Your task to perform on an android device: Search for vegetarian restaurants on Maps Image 0: 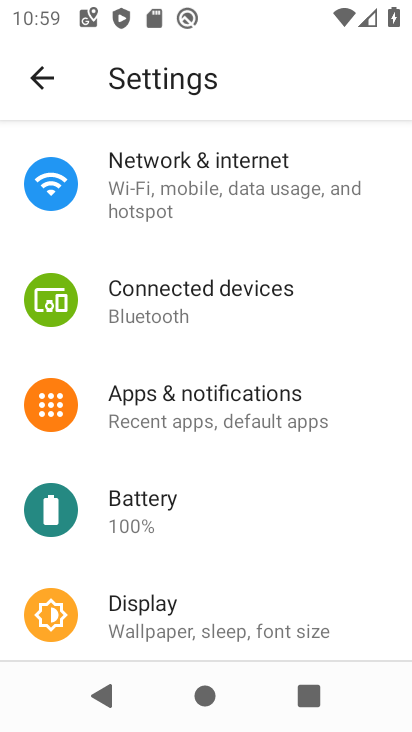
Step 0: press back button
Your task to perform on an android device: Search for vegetarian restaurants on Maps Image 1: 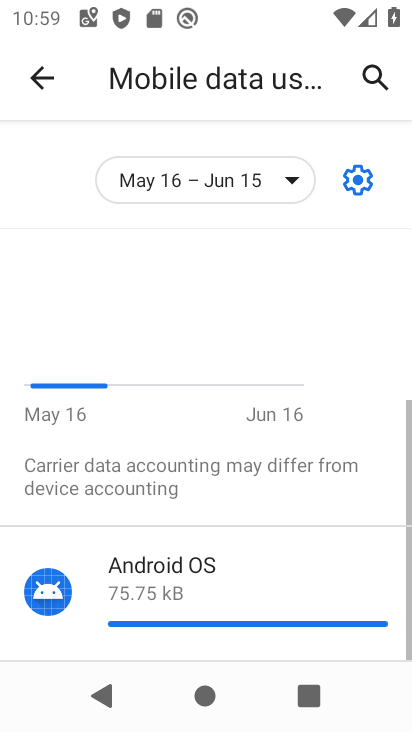
Step 1: press back button
Your task to perform on an android device: Search for vegetarian restaurants on Maps Image 2: 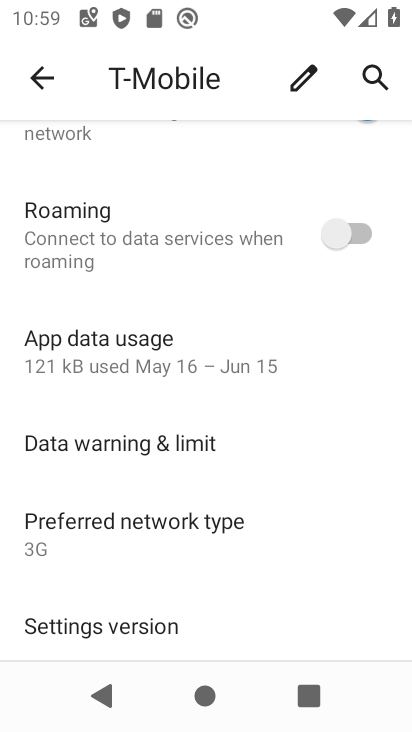
Step 2: press back button
Your task to perform on an android device: Search for vegetarian restaurants on Maps Image 3: 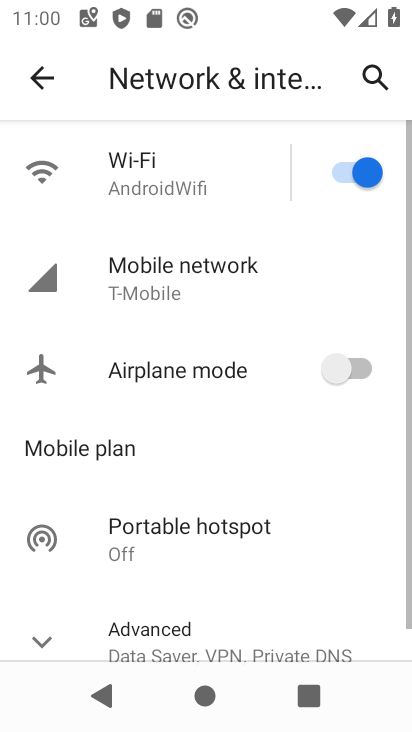
Step 3: press back button
Your task to perform on an android device: Search for vegetarian restaurants on Maps Image 4: 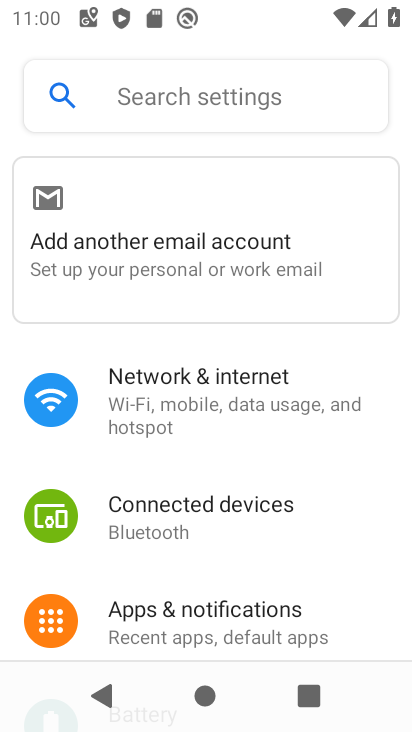
Step 4: press back button
Your task to perform on an android device: Search for vegetarian restaurants on Maps Image 5: 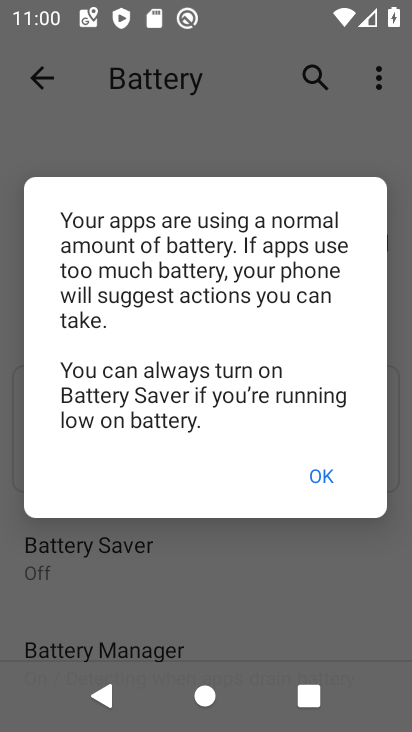
Step 5: press home button
Your task to perform on an android device: Search for vegetarian restaurants on Maps Image 6: 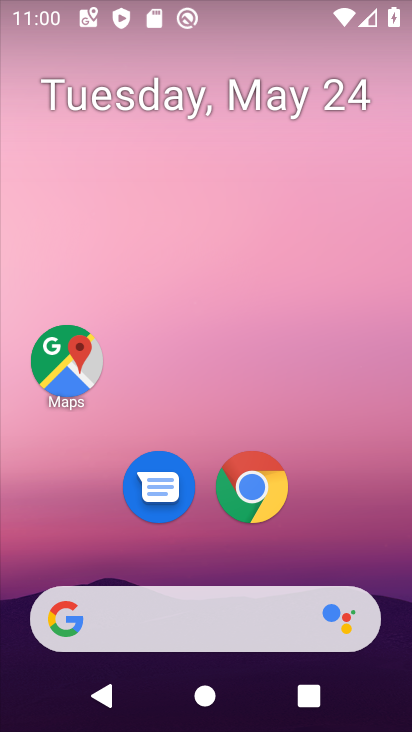
Step 6: click (63, 348)
Your task to perform on an android device: Search for vegetarian restaurants on Maps Image 7: 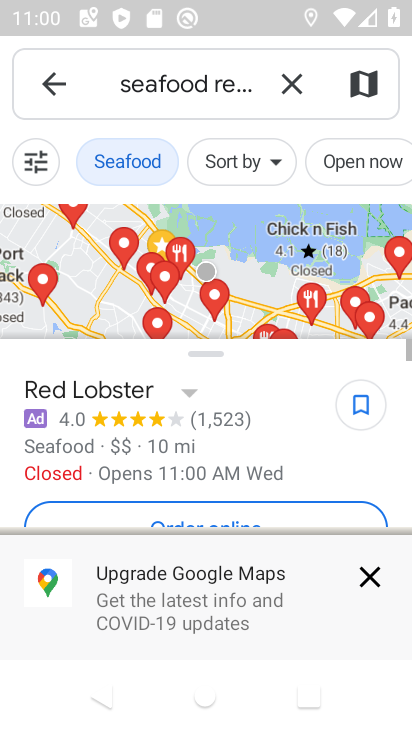
Step 7: click (287, 79)
Your task to perform on an android device: Search for vegetarian restaurants on Maps Image 8: 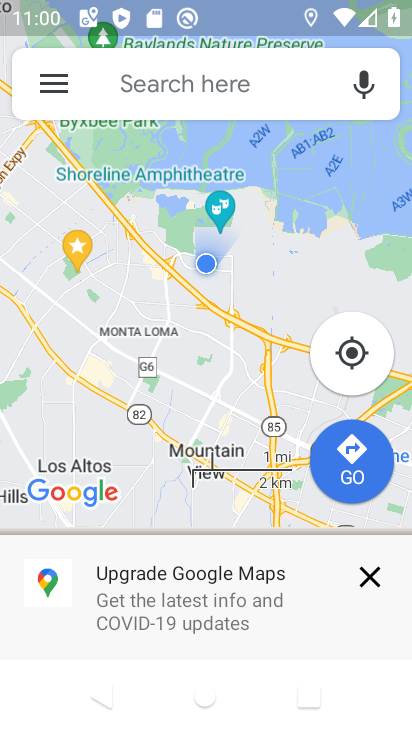
Step 8: click (182, 84)
Your task to perform on an android device: Search for vegetarian restaurants on Maps Image 9: 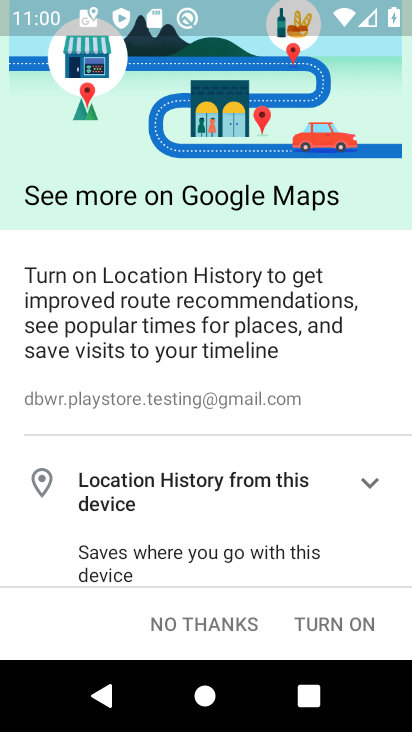
Step 9: click (189, 621)
Your task to perform on an android device: Search for vegetarian restaurants on Maps Image 10: 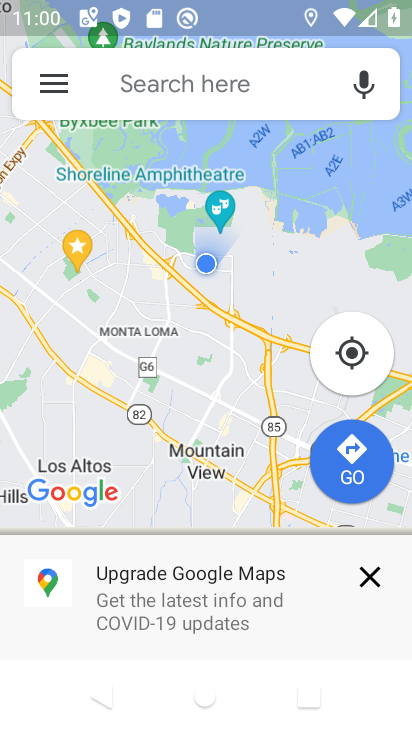
Step 10: click (165, 89)
Your task to perform on an android device: Search for vegetarian restaurants on Maps Image 11: 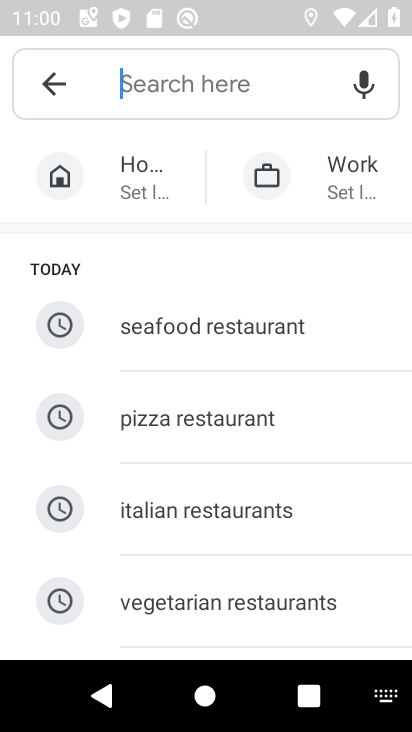
Step 11: click (174, 575)
Your task to perform on an android device: Search for vegetarian restaurants on Maps Image 12: 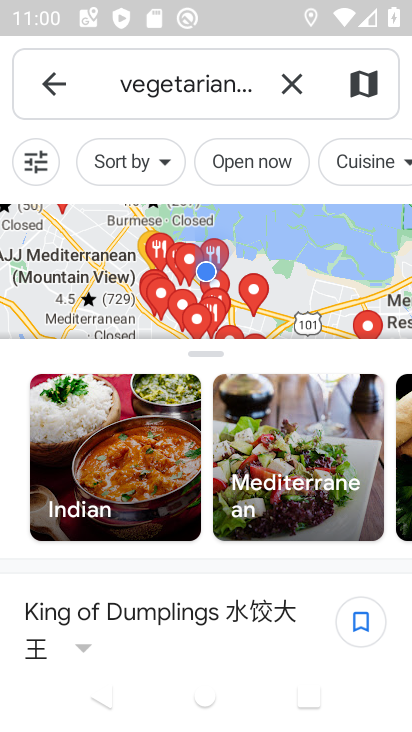
Step 12: task complete